Your task to perform on an android device: Go to accessibility settings Image 0: 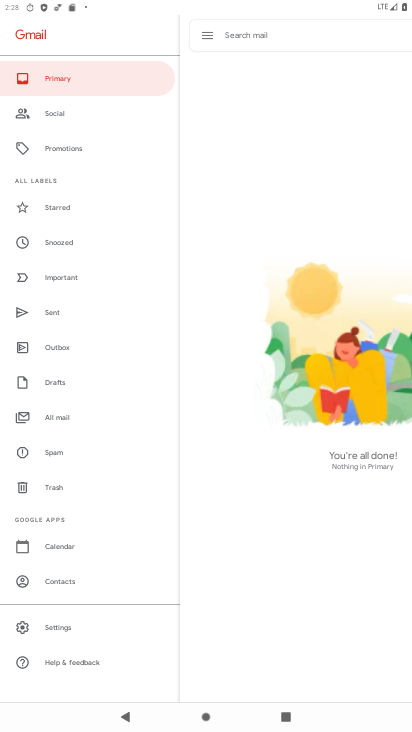
Step 0: press home button
Your task to perform on an android device: Go to accessibility settings Image 1: 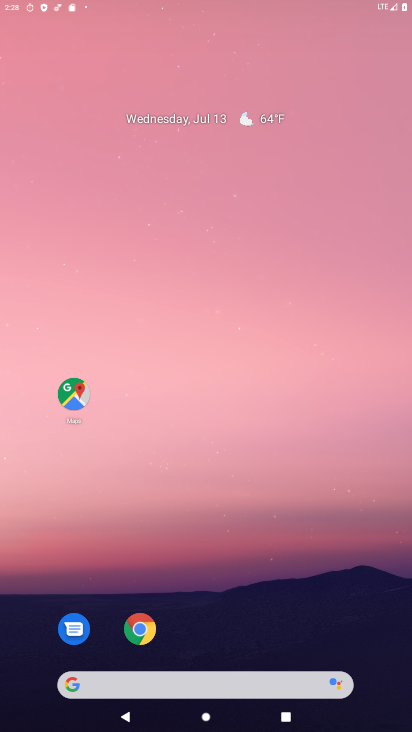
Step 1: drag from (320, 675) to (278, 3)
Your task to perform on an android device: Go to accessibility settings Image 2: 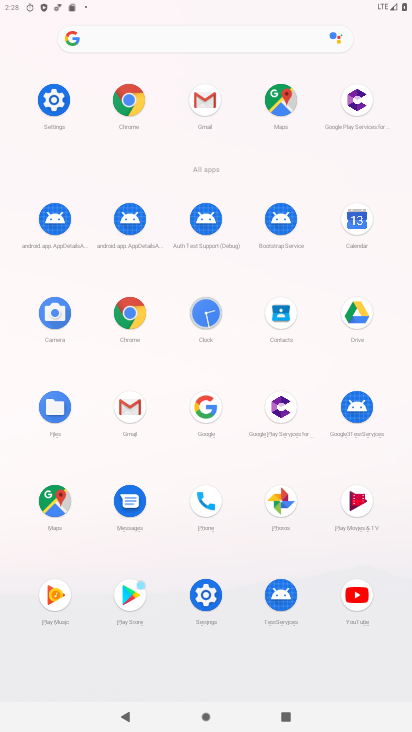
Step 2: click (65, 105)
Your task to perform on an android device: Go to accessibility settings Image 3: 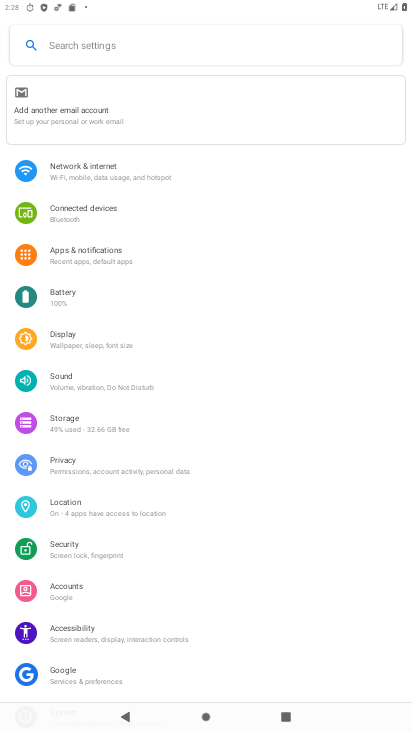
Step 3: click (141, 637)
Your task to perform on an android device: Go to accessibility settings Image 4: 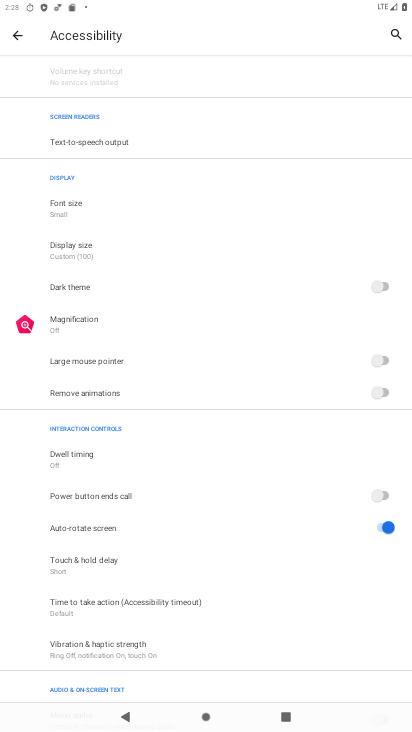
Step 4: task complete